Your task to perform on an android device: open chrome and create a bookmark for the current page Image 0: 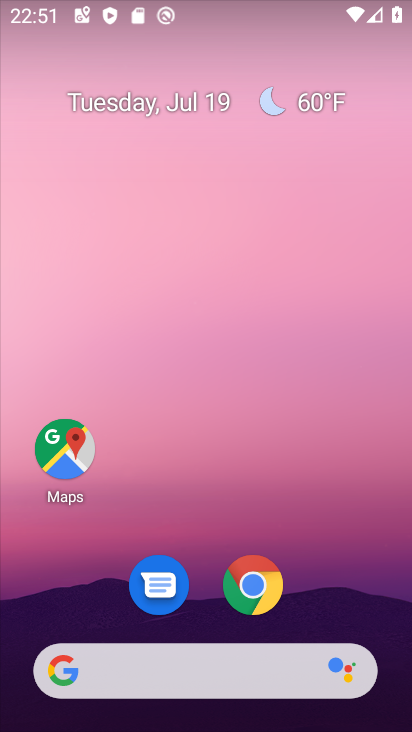
Step 0: click (265, 586)
Your task to perform on an android device: open chrome and create a bookmark for the current page Image 1: 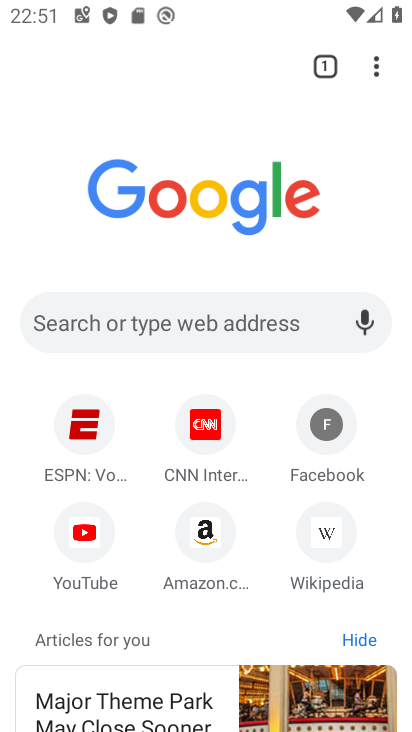
Step 1: click (372, 71)
Your task to perform on an android device: open chrome and create a bookmark for the current page Image 2: 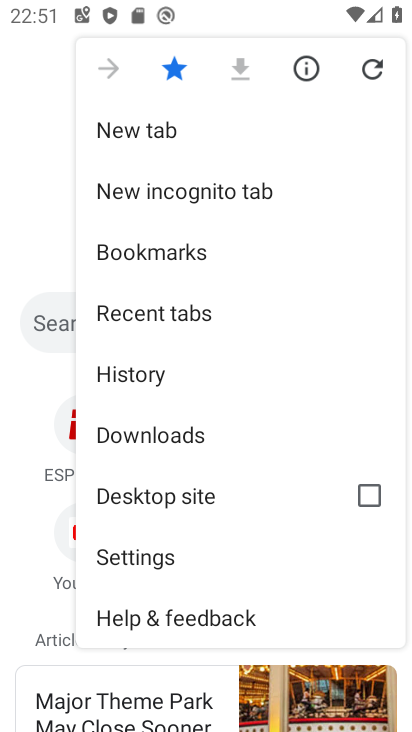
Step 2: task complete